Your task to perform on an android device: Empty the shopping cart on amazon. Search for rayovac triple a on amazon, select the first entry, add it to the cart, then select checkout. Image 0: 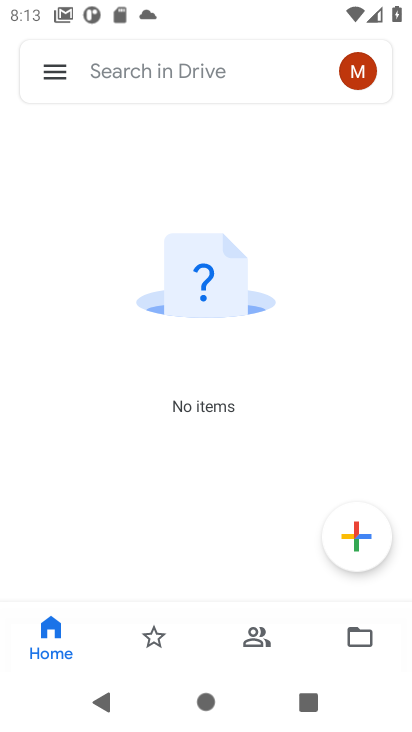
Step 0: press home button
Your task to perform on an android device: Empty the shopping cart on amazon. Search for rayovac triple a on amazon, select the first entry, add it to the cart, then select checkout. Image 1: 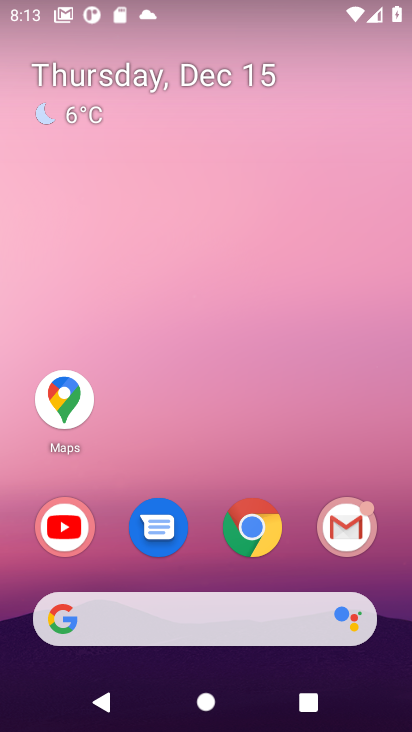
Step 1: click (243, 530)
Your task to perform on an android device: Empty the shopping cart on amazon. Search for rayovac triple a on amazon, select the first entry, add it to the cart, then select checkout. Image 2: 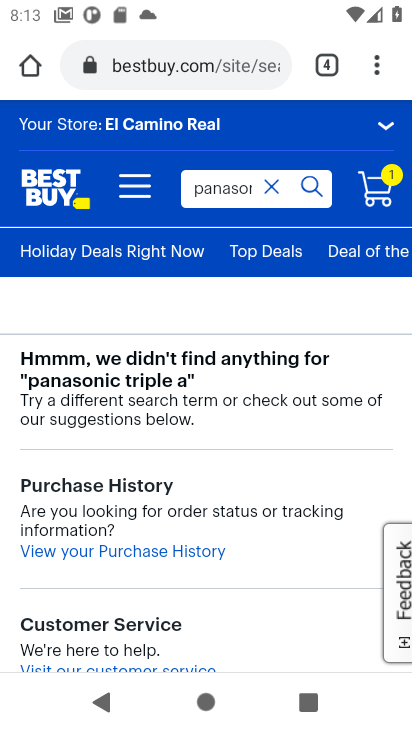
Step 2: click (134, 67)
Your task to perform on an android device: Empty the shopping cart on amazon. Search for rayovac triple a on amazon, select the first entry, add it to the cart, then select checkout. Image 3: 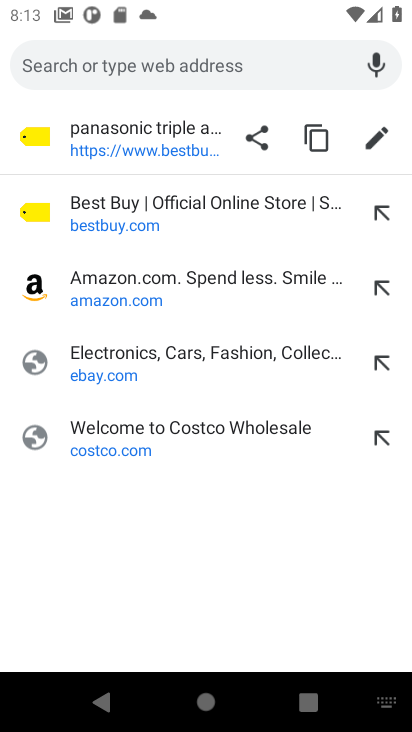
Step 3: type "amazon"
Your task to perform on an android device: Empty the shopping cart on amazon. Search for rayovac triple a on amazon, select the first entry, add it to the cart, then select checkout. Image 4: 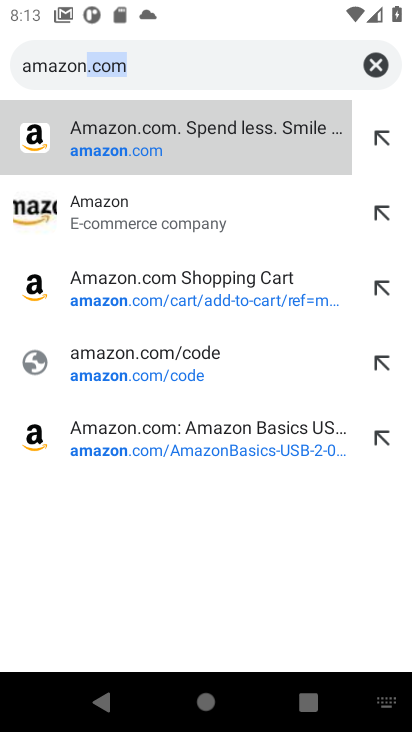
Step 4: click (177, 151)
Your task to perform on an android device: Empty the shopping cart on amazon. Search for rayovac triple a on amazon, select the first entry, add it to the cart, then select checkout. Image 5: 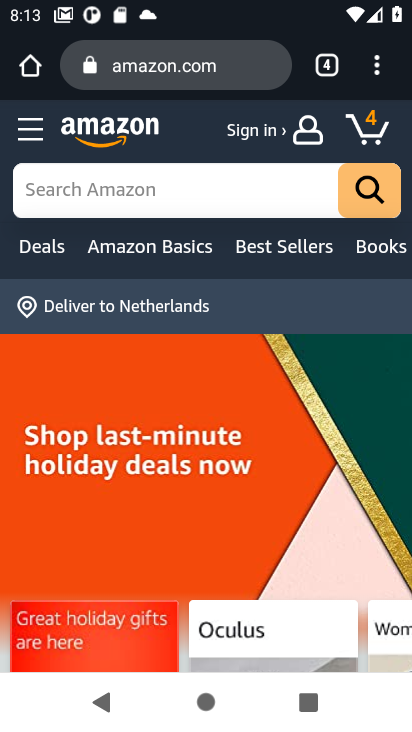
Step 5: click (118, 182)
Your task to perform on an android device: Empty the shopping cart on amazon. Search for rayovac triple a on amazon, select the first entry, add it to the cart, then select checkout. Image 6: 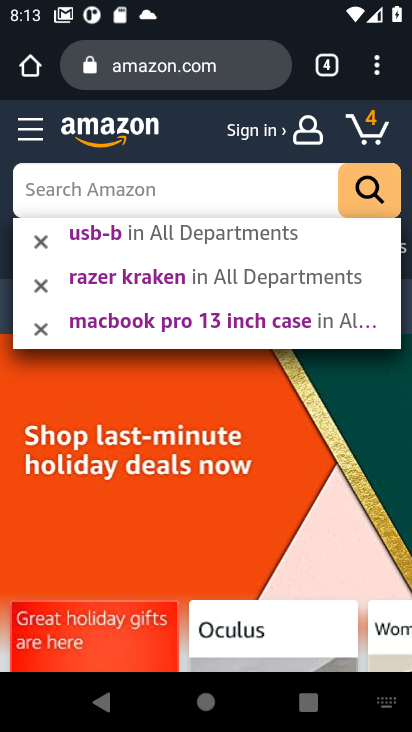
Step 6: type "rayovac triple a"
Your task to perform on an android device: Empty the shopping cart on amazon. Search for rayovac triple a on amazon, select the first entry, add it to the cart, then select checkout. Image 7: 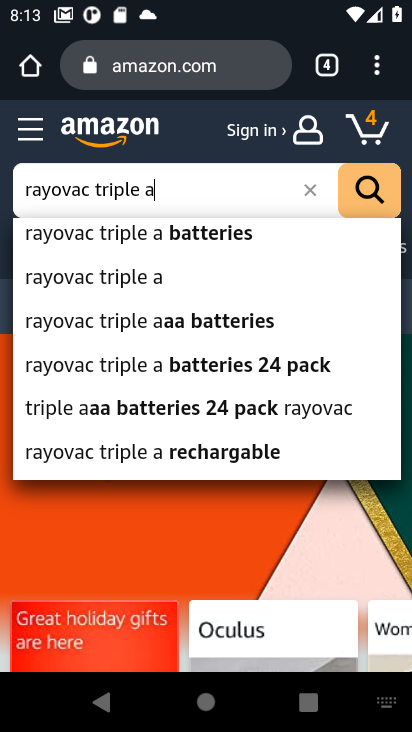
Step 7: click (203, 230)
Your task to perform on an android device: Empty the shopping cart on amazon. Search for rayovac triple a on amazon, select the first entry, add it to the cart, then select checkout. Image 8: 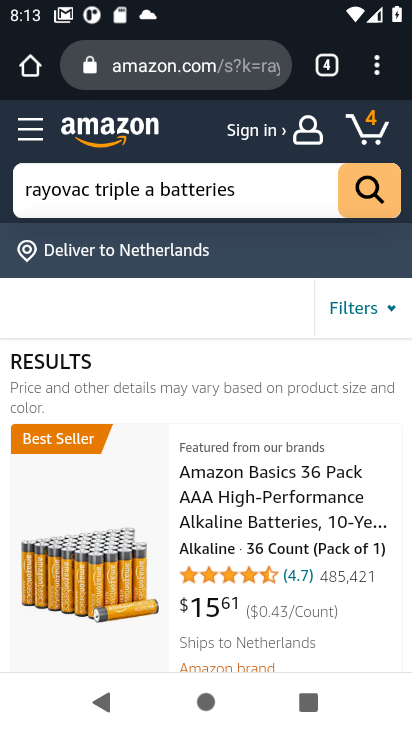
Step 8: click (234, 518)
Your task to perform on an android device: Empty the shopping cart on amazon. Search for rayovac triple a on amazon, select the first entry, add it to the cart, then select checkout. Image 9: 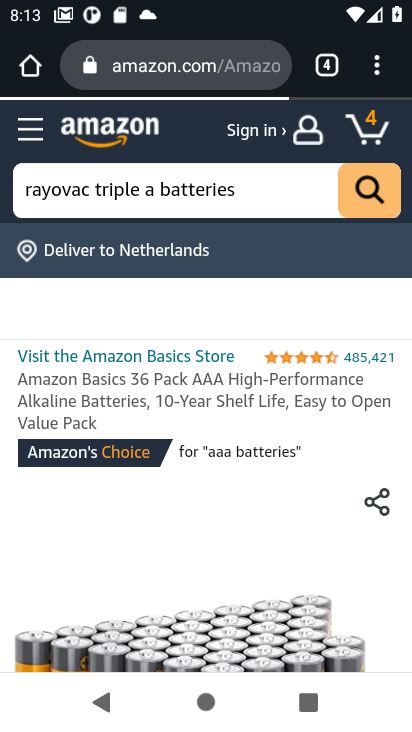
Step 9: drag from (187, 596) to (215, 181)
Your task to perform on an android device: Empty the shopping cart on amazon. Search for rayovac triple a on amazon, select the first entry, add it to the cart, then select checkout. Image 10: 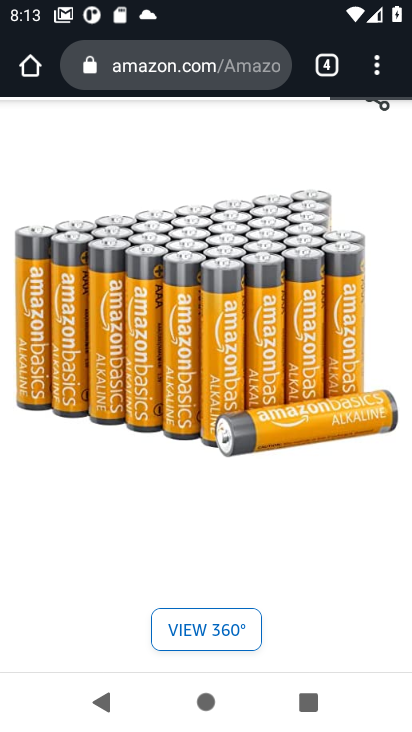
Step 10: drag from (84, 600) to (139, 179)
Your task to perform on an android device: Empty the shopping cart on amazon. Search for rayovac triple a on amazon, select the first entry, add it to the cart, then select checkout. Image 11: 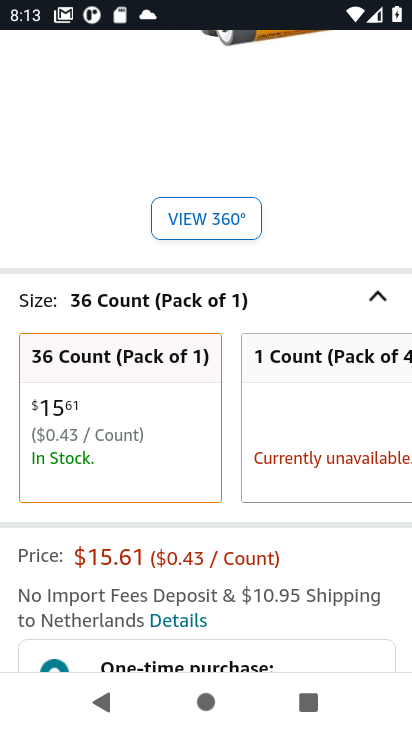
Step 11: drag from (231, 614) to (235, 306)
Your task to perform on an android device: Empty the shopping cart on amazon. Search for rayovac triple a on amazon, select the first entry, add it to the cart, then select checkout. Image 12: 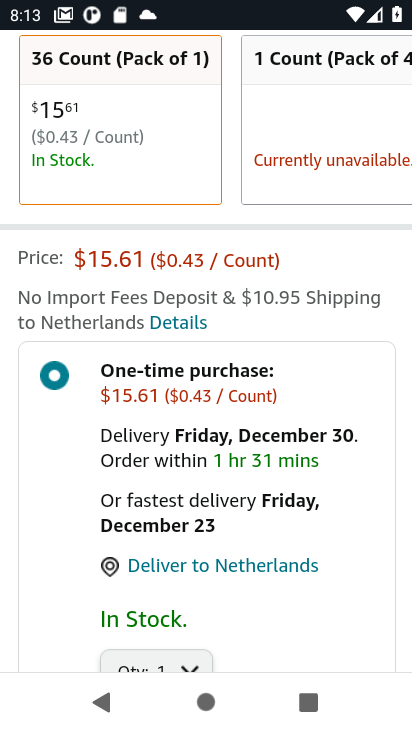
Step 12: drag from (274, 601) to (270, 330)
Your task to perform on an android device: Empty the shopping cart on amazon. Search for rayovac triple a on amazon, select the first entry, add it to the cart, then select checkout. Image 13: 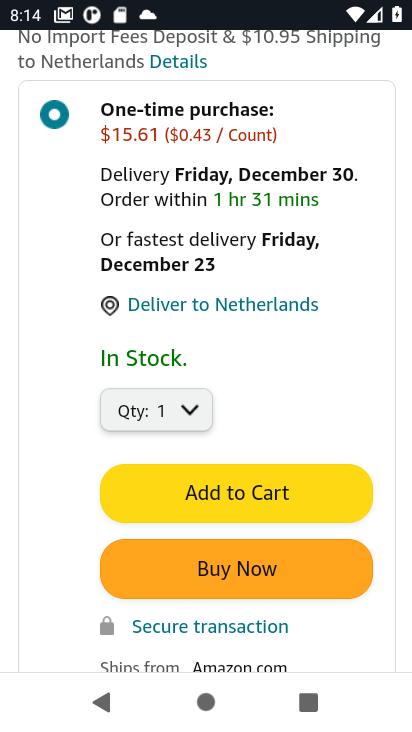
Step 13: click (255, 501)
Your task to perform on an android device: Empty the shopping cart on amazon. Search for rayovac triple a on amazon, select the first entry, add it to the cart, then select checkout. Image 14: 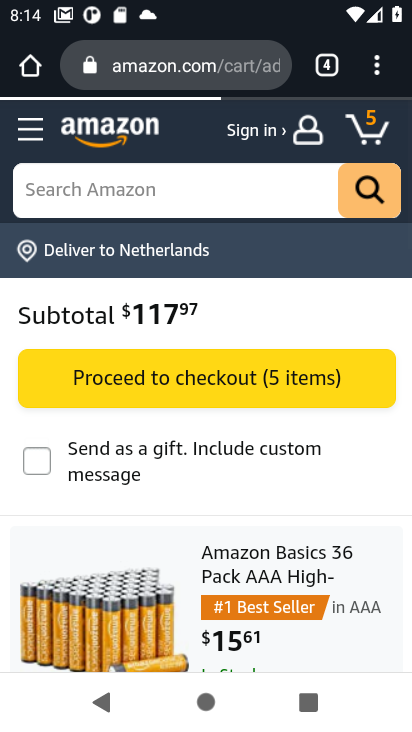
Step 14: task complete